Your task to perform on an android device: install app "Pandora - Music & Podcasts" Image 0: 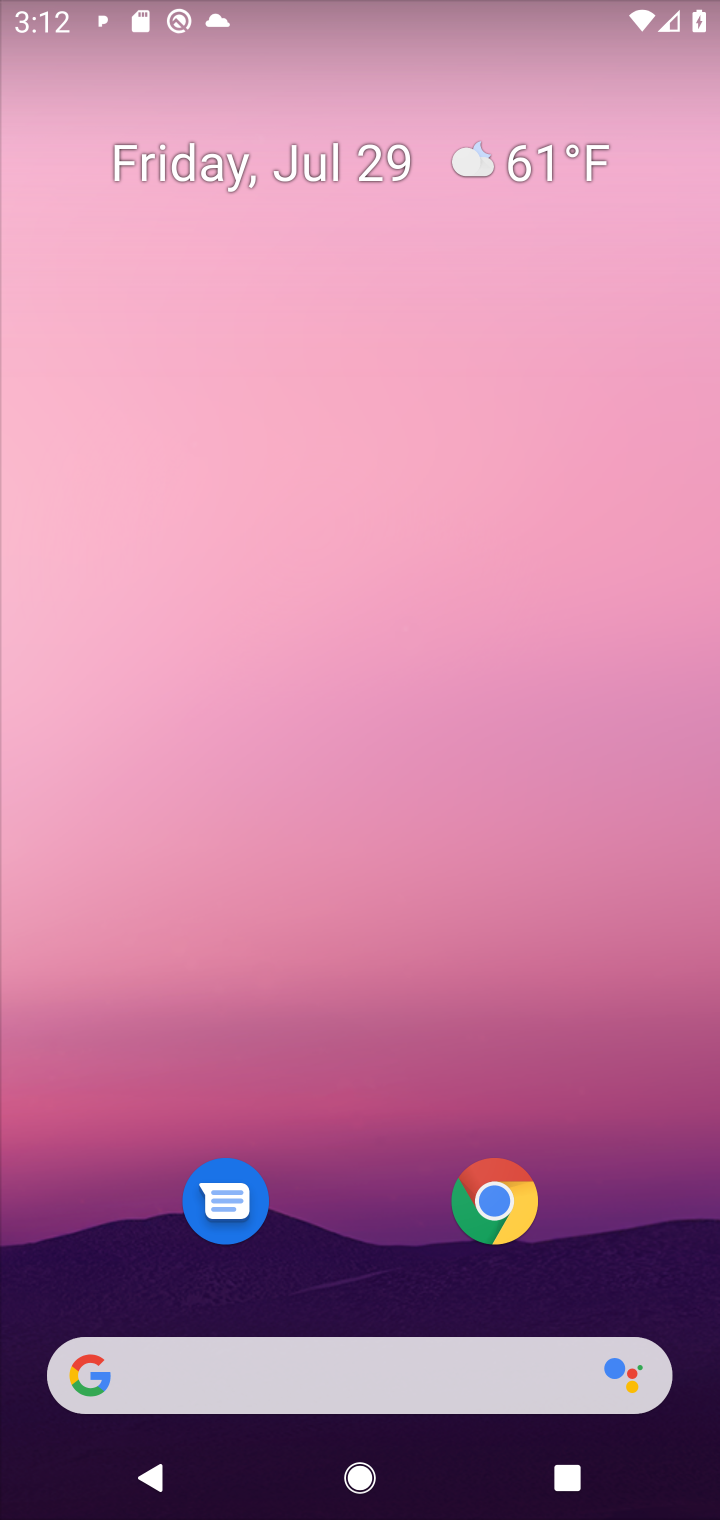
Step 0: drag from (652, 1238) to (620, 1140)
Your task to perform on an android device: install app "Pandora - Music & Podcasts" Image 1: 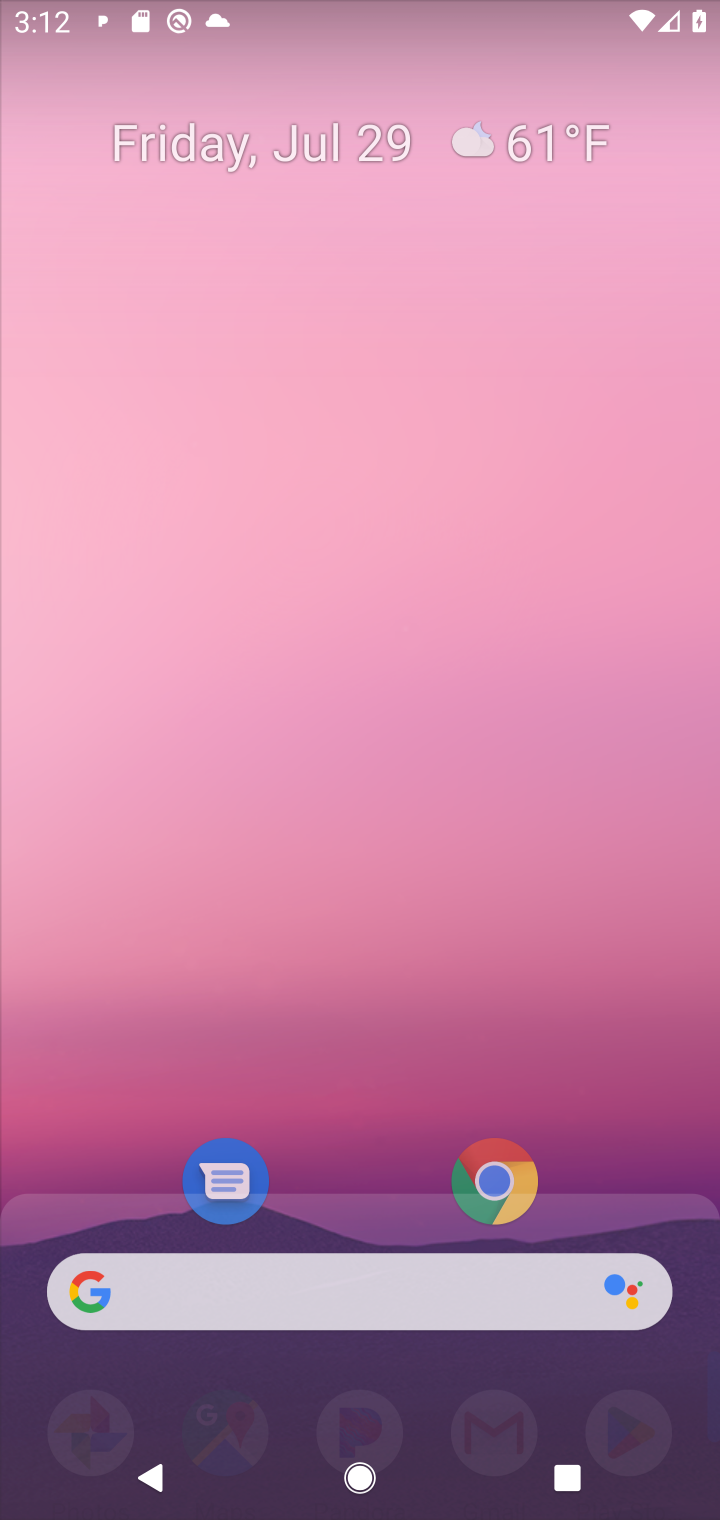
Step 1: click (99, 204)
Your task to perform on an android device: install app "Pandora - Music & Podcasts" Image 2: 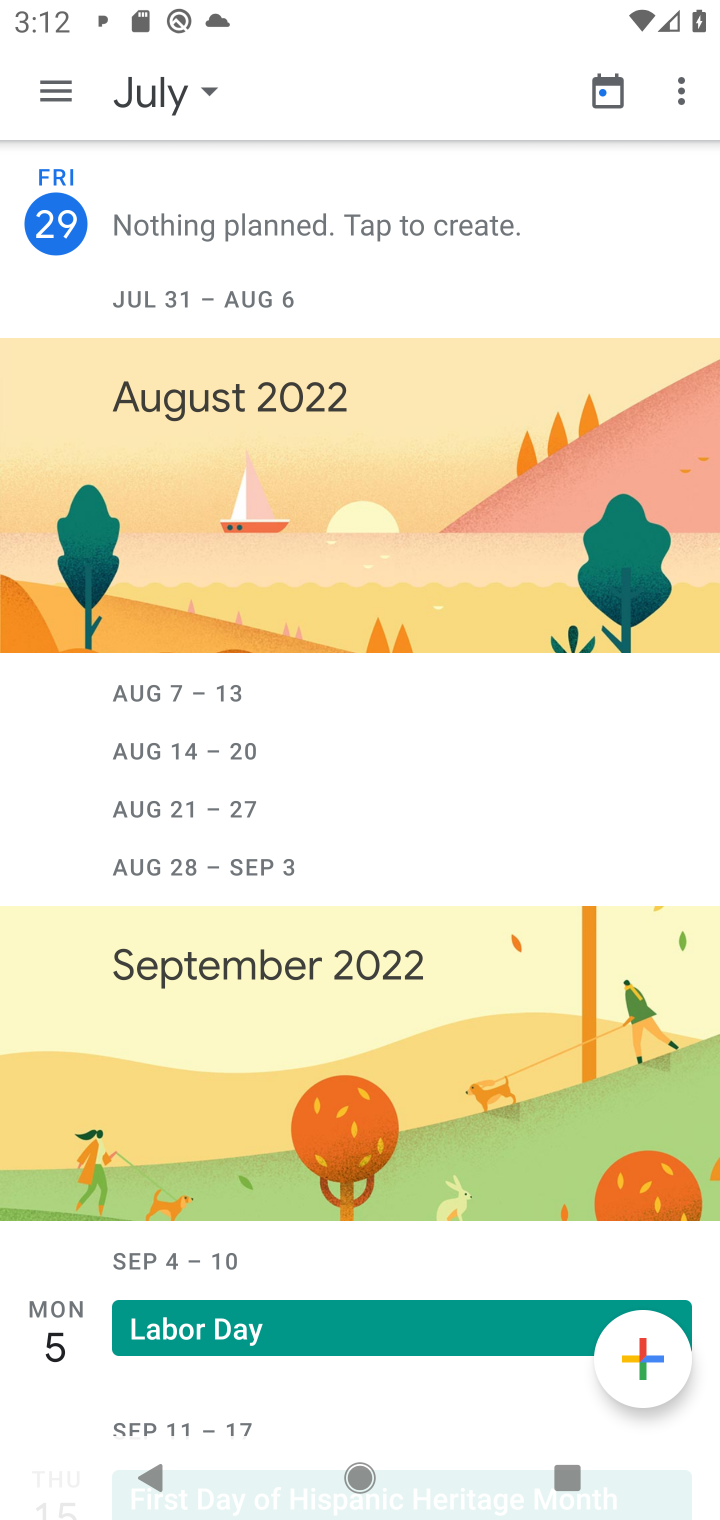
Step 2: press home button
Your task to perform on an android device: install app "Pandora - Music & Podcasts" Image 3: 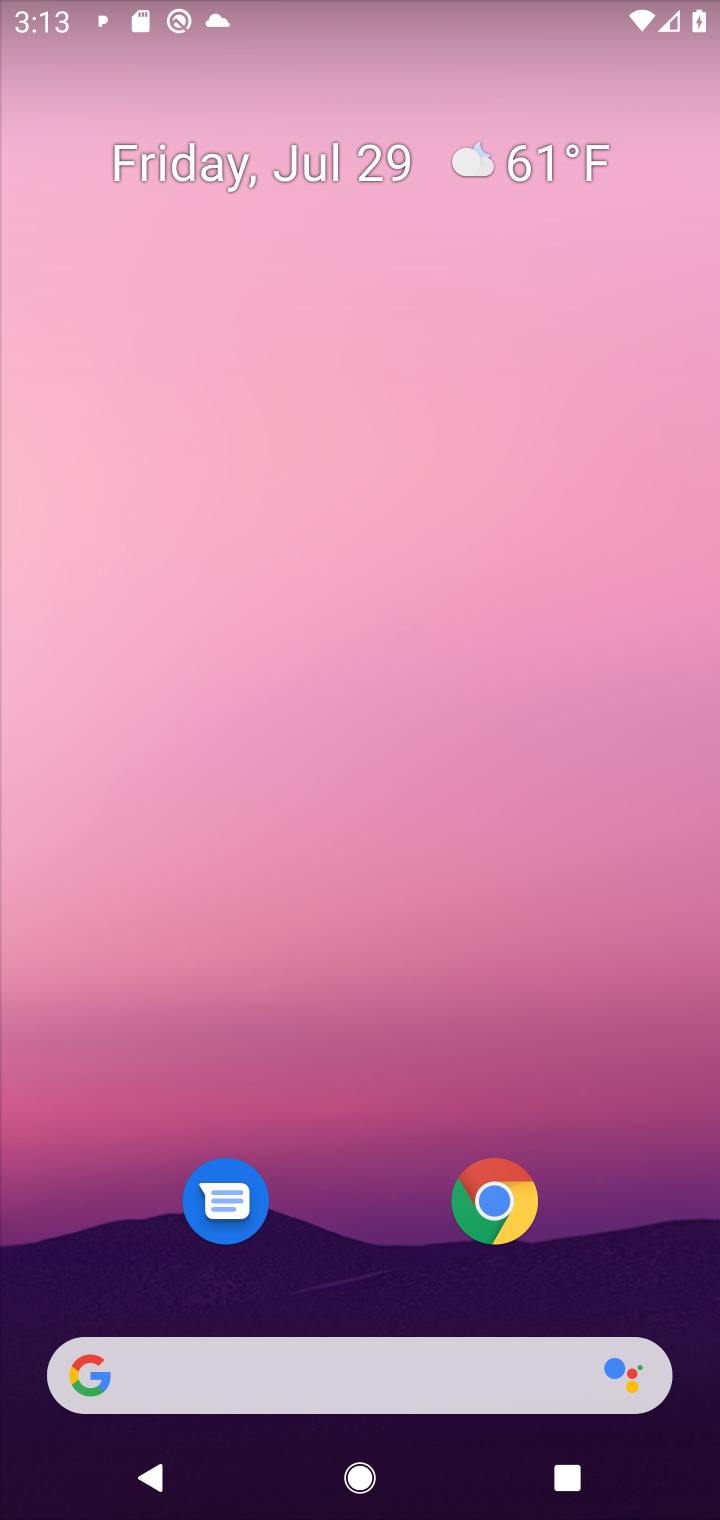
Step 3: drag from (623, 1179) to (539, 503)
Your task to perform on an android device: install app "Pandora - Music & Podcasts" Image 4: 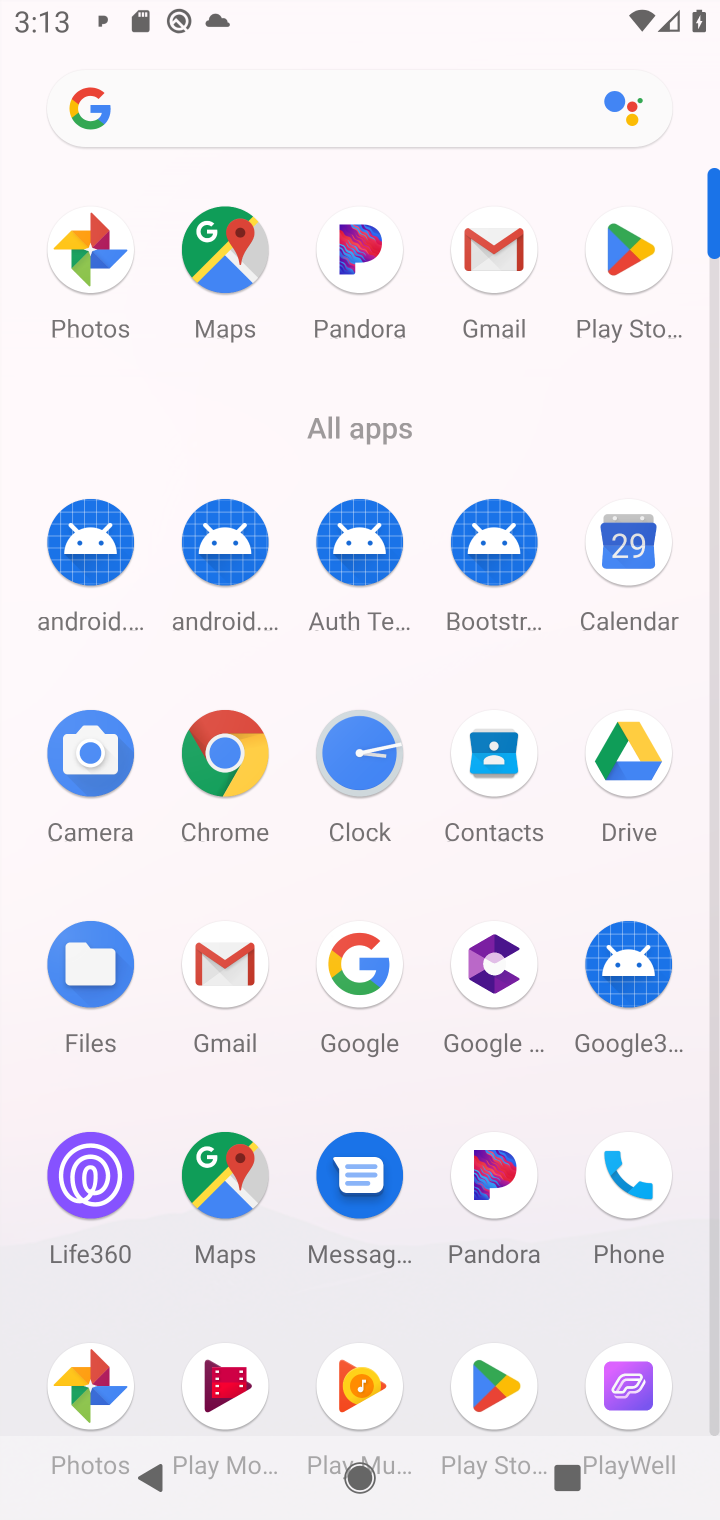
Step 4: click (622, 257)
Your task to perform on an android device: install app "Pandora - Music & Podcasts" Image 5: 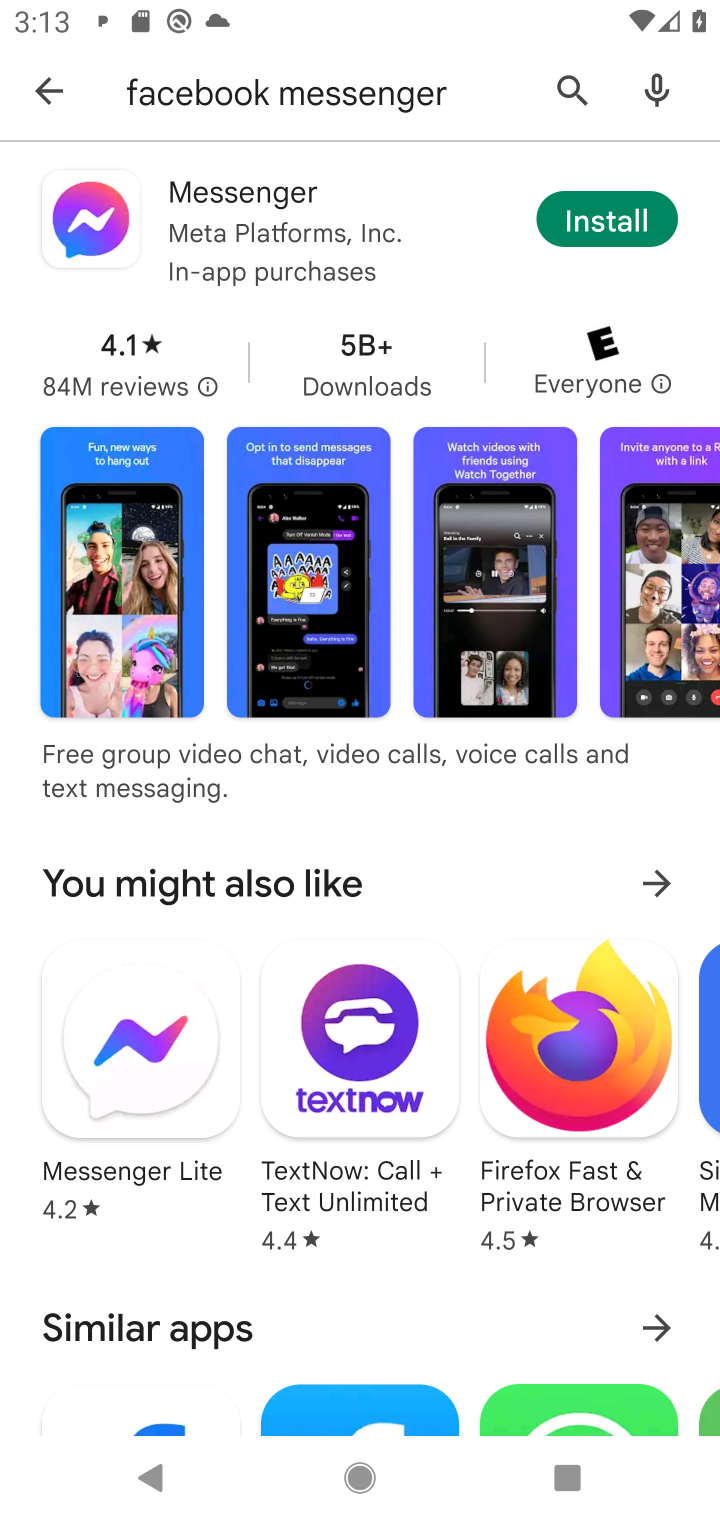
Step 5: click (562, 67)
Your task to perform on an android device: install app "Pandora - Music & Podcasts" Image 6: 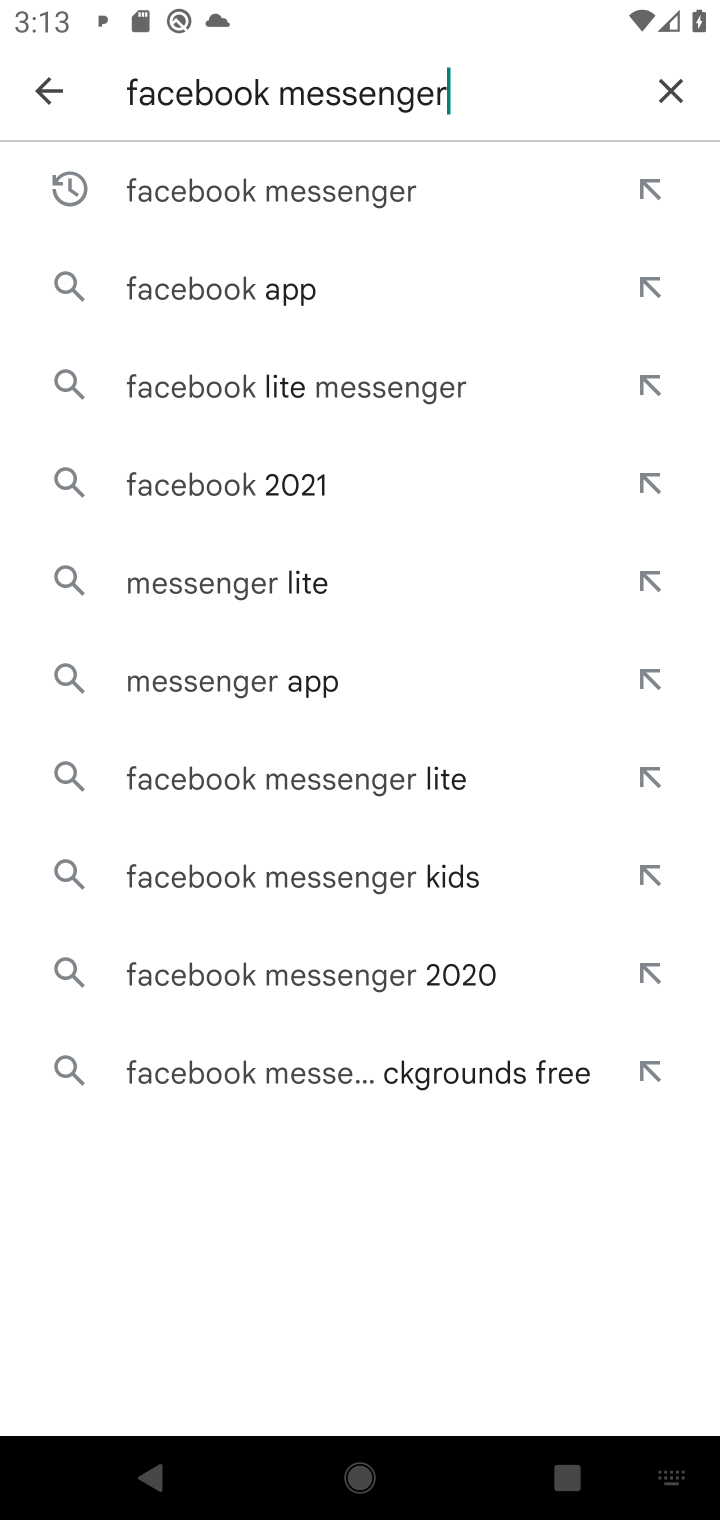
Step 6: click (655, 92)
Your task to perform on an android device: install app "Pandora - Music & Podcasts" Image 7: 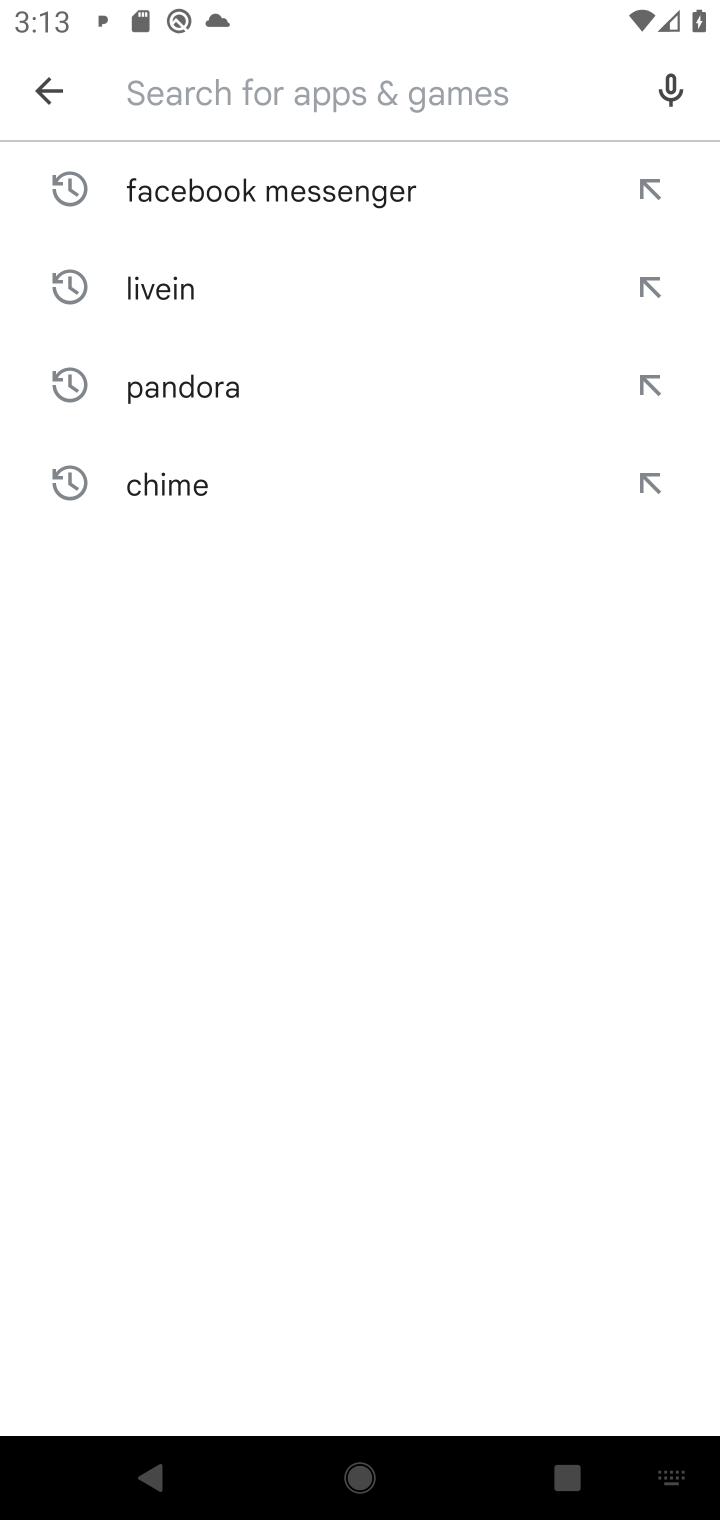
Step 7: type "Pandora"
Your task to perform on an android device: install app "Pandora - Music & Podcasts" Image 8: 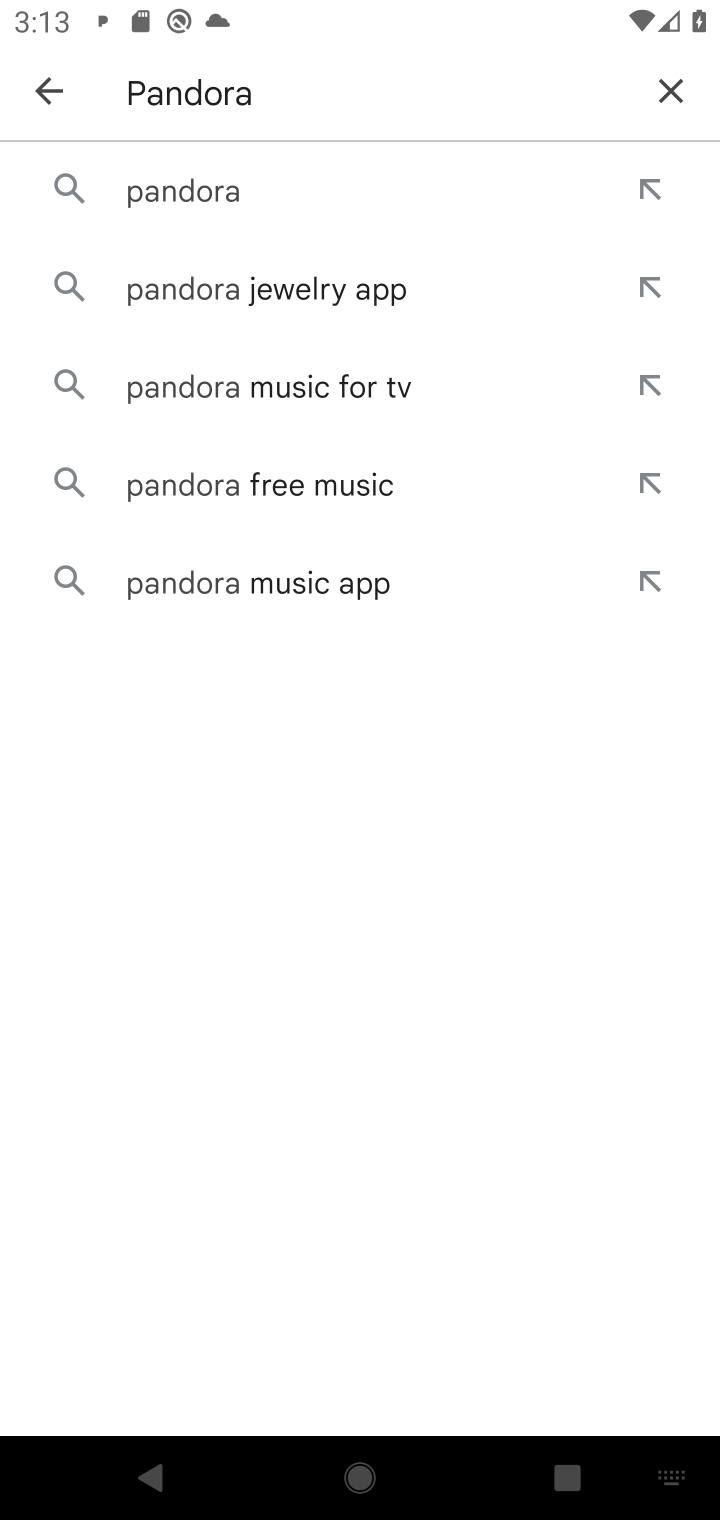
Step 8: click (252, 174)
Your task to perform on an android device: install app "Pandora - Music & Podcasts" Image 9: 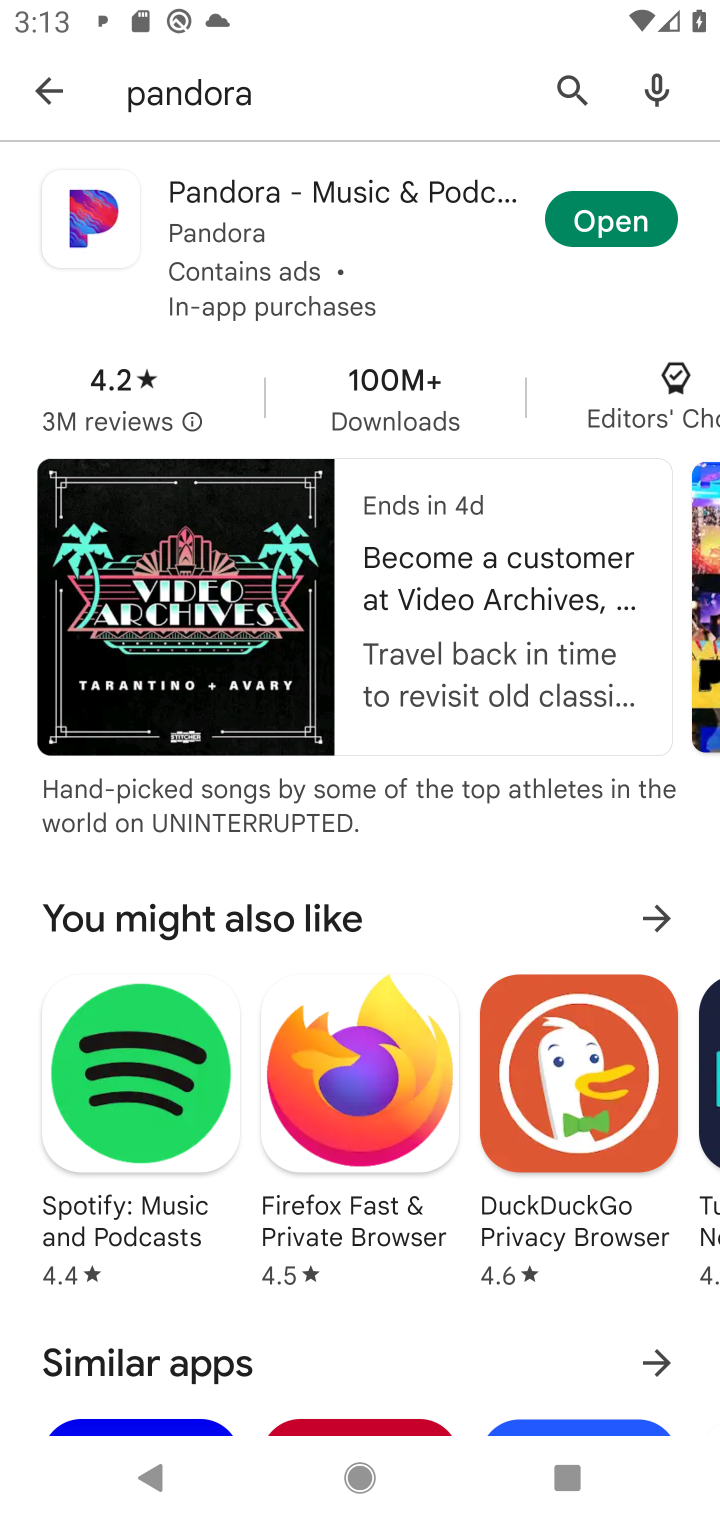
Step 9: task complete